Your task to perform on an android device: uninstall "Grab" Image 0: 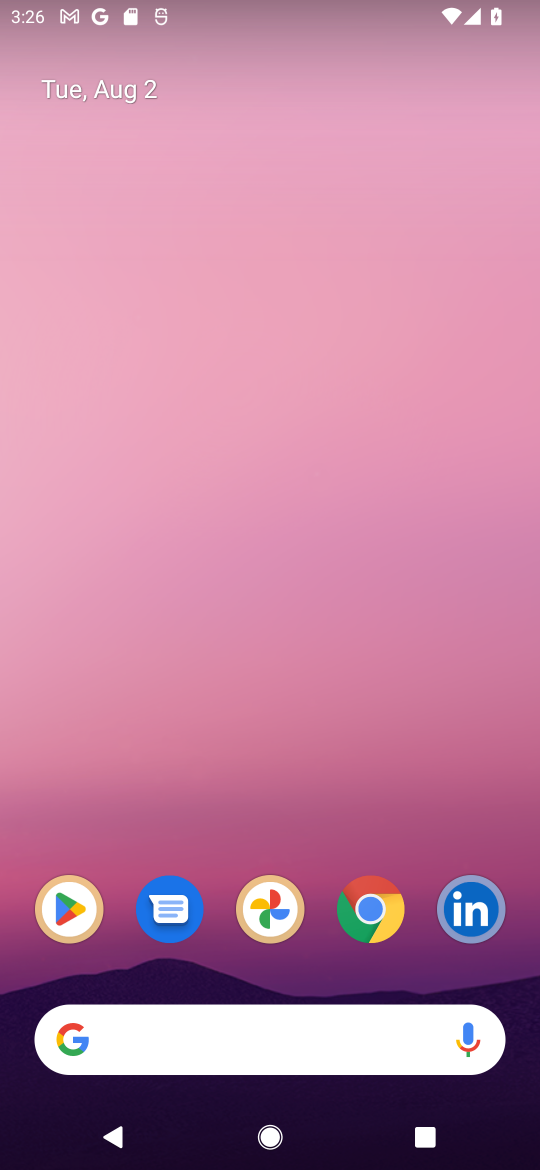
Step 0: drag from (266, 944) to (388, 513)
Your task to perform on an android device: uninstall "Grab" Image 1: 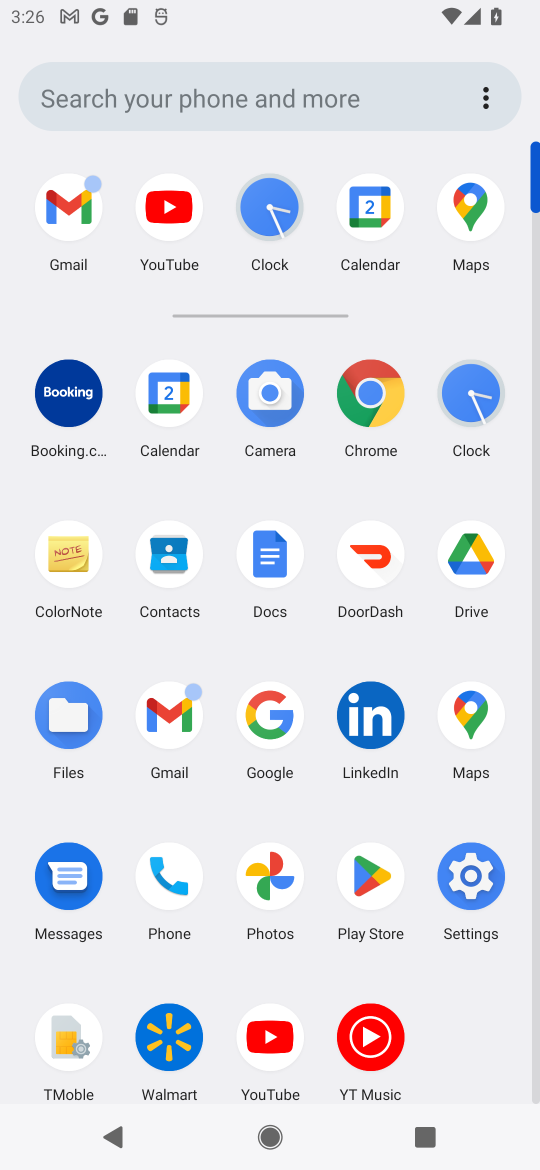
Step 1: click (384, 890)
Your task to perform on an android device: uninstall "Grab" Image 2: 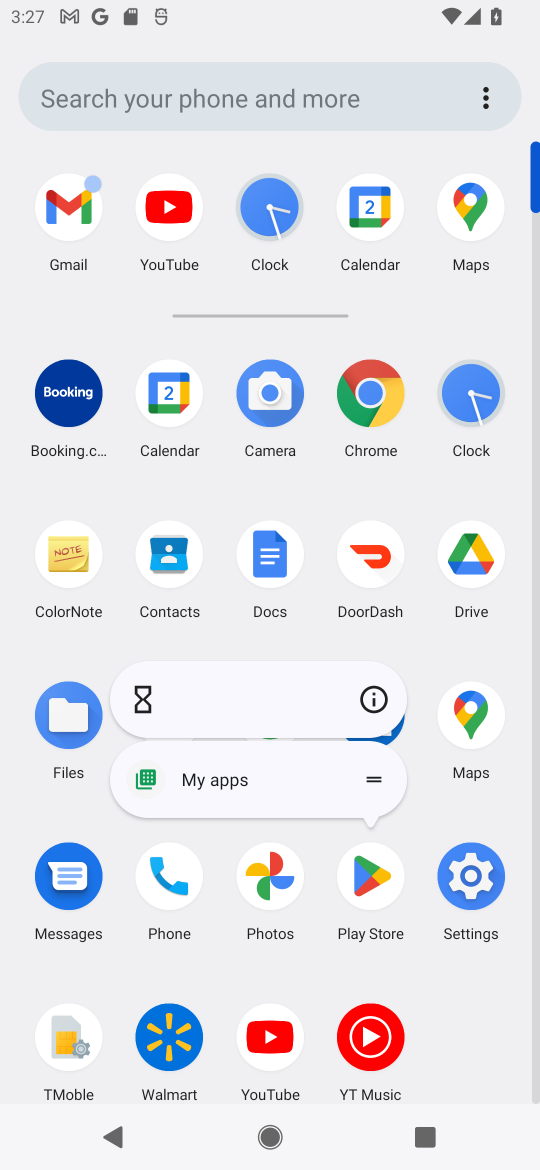
Step 2: click (372, 691)
Your task to perform on an android device: uninstall "Grab" Image 3: 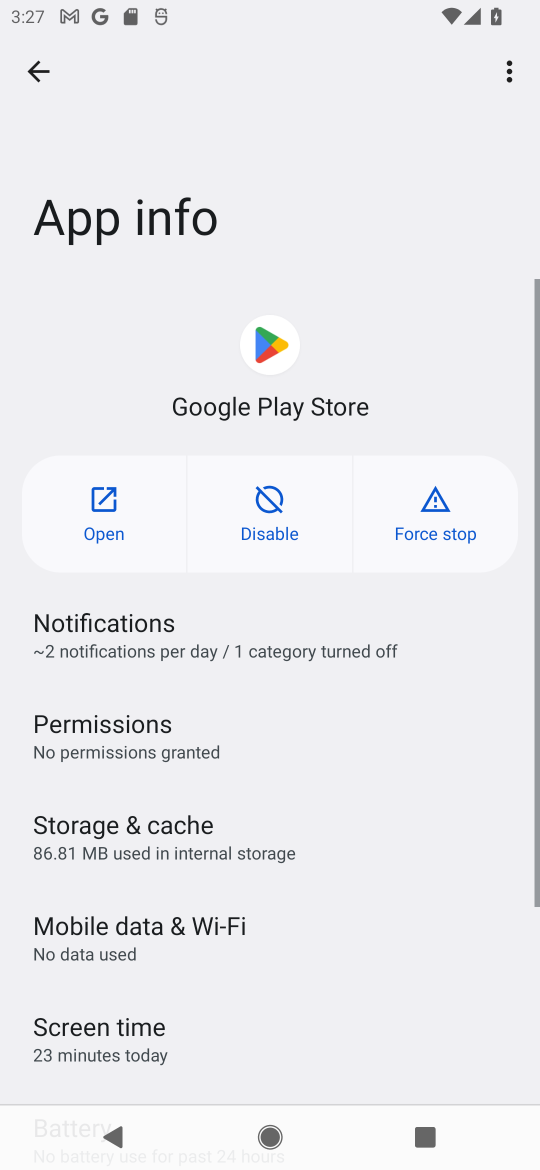
Step 3: click (97, 523)
Your task to perform on an android device: uninstall "Grab" Image 4: 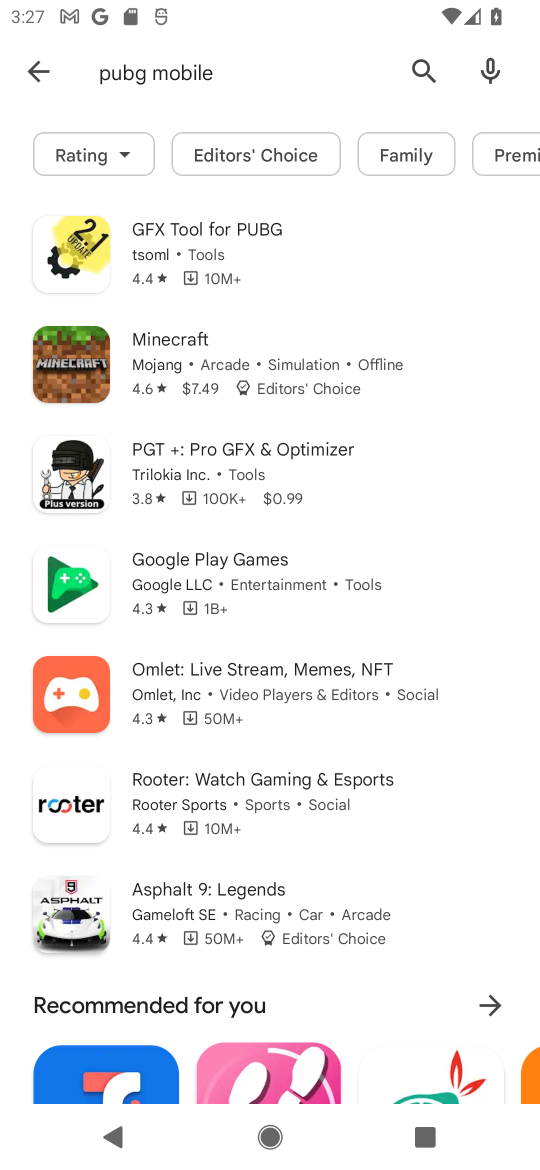
Step 4: click (435, 77)
Your task to perform on an android device: uninstall "Grab" Image 5: 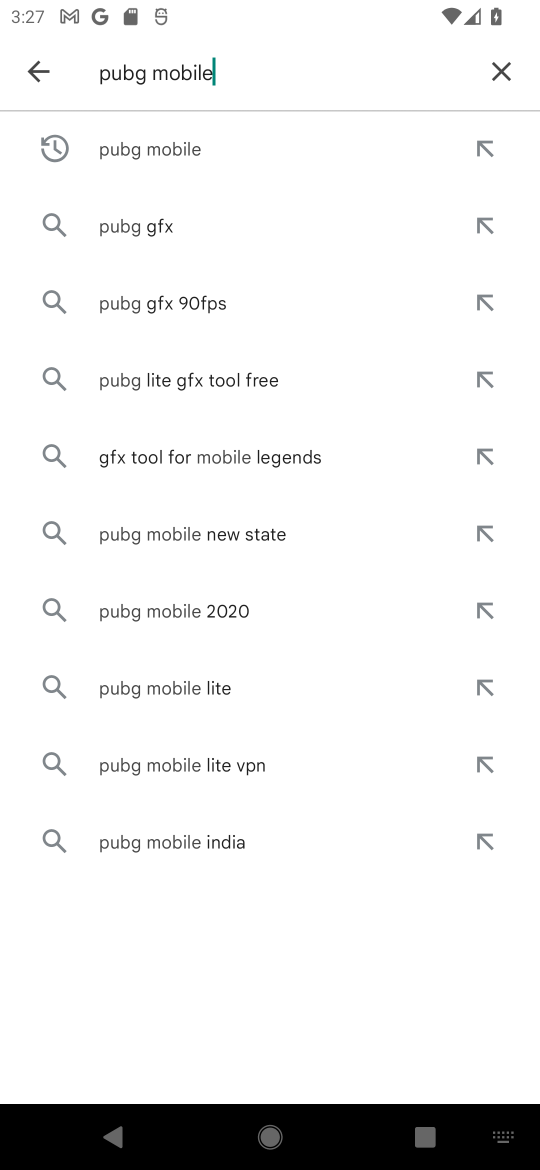
Step 5: click (510, 76)
Your task to perform on an android device: uninstall "Grab" Image 6: 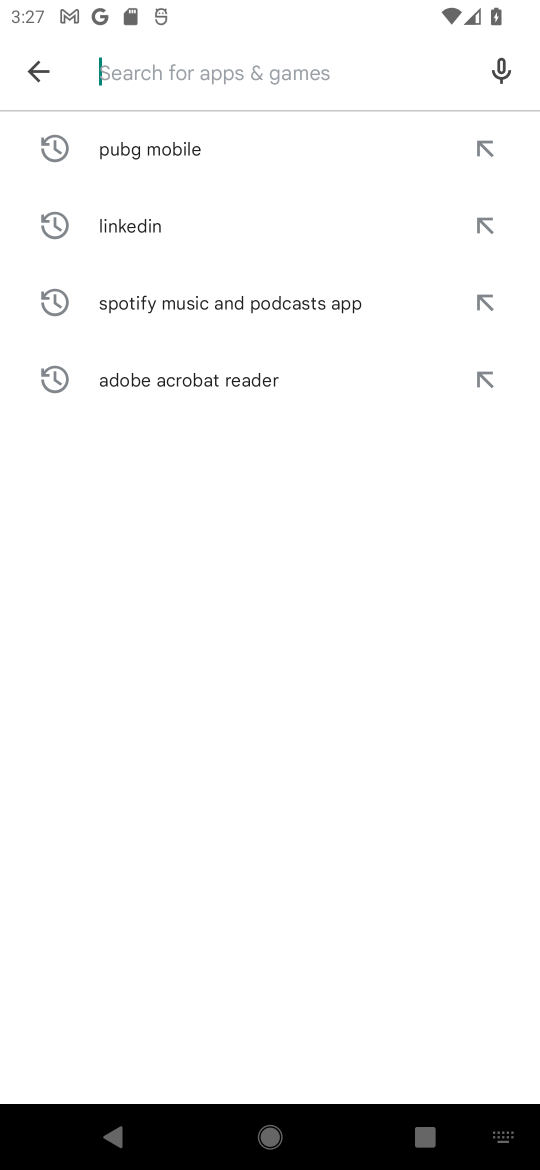
Step 6: click (147, 63)
Your task to perform on an android device: uninstall "Grab" Image 7: 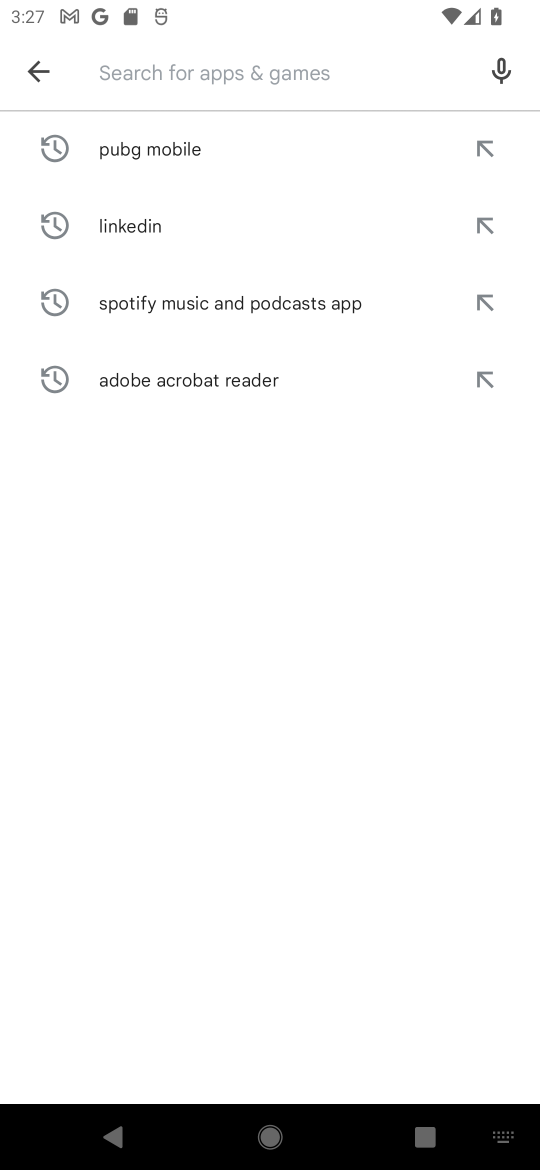
Step 7: type "Grab"
Your task to perform on an android device: uninstall "Grab" Image 8: 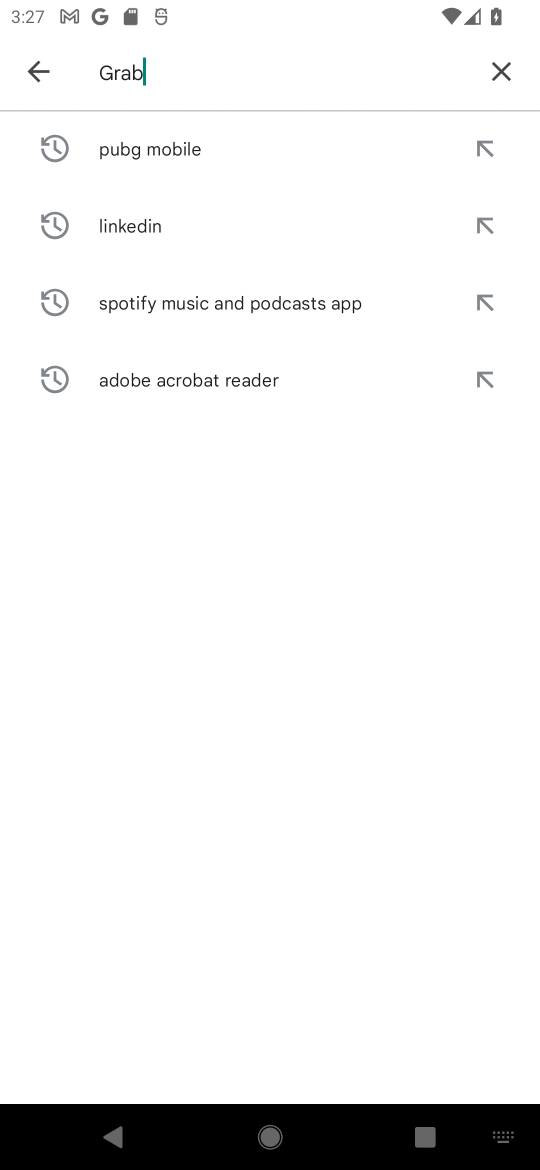
Step 8: type ""
Your task to perform on an android device: uninstall "Grab" Image 9: 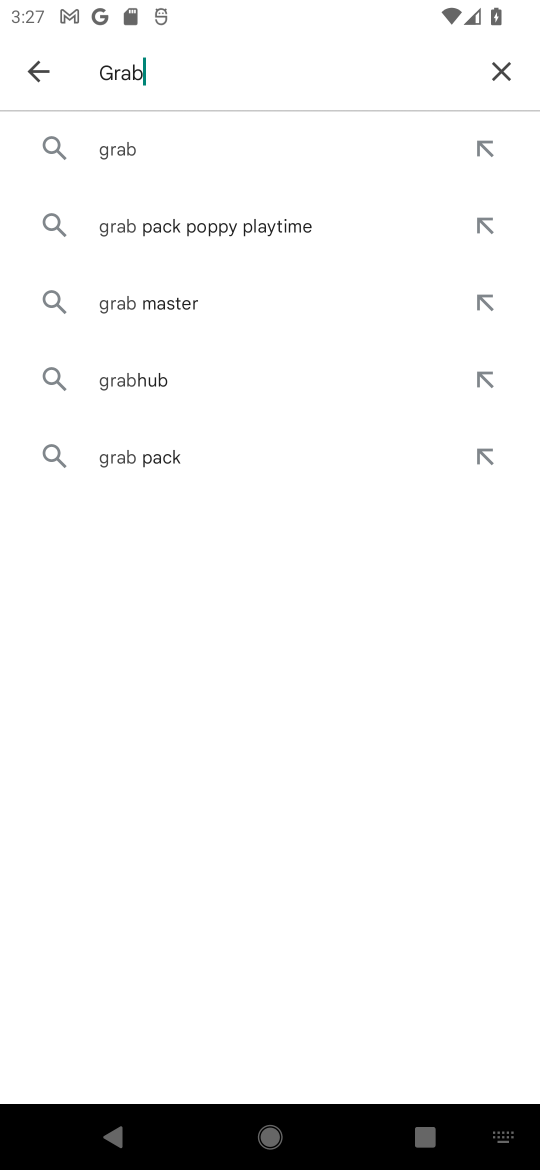
Step 9: click (189, 151)
Your task to perform on an android device: uninstall "Grab" Image 10: 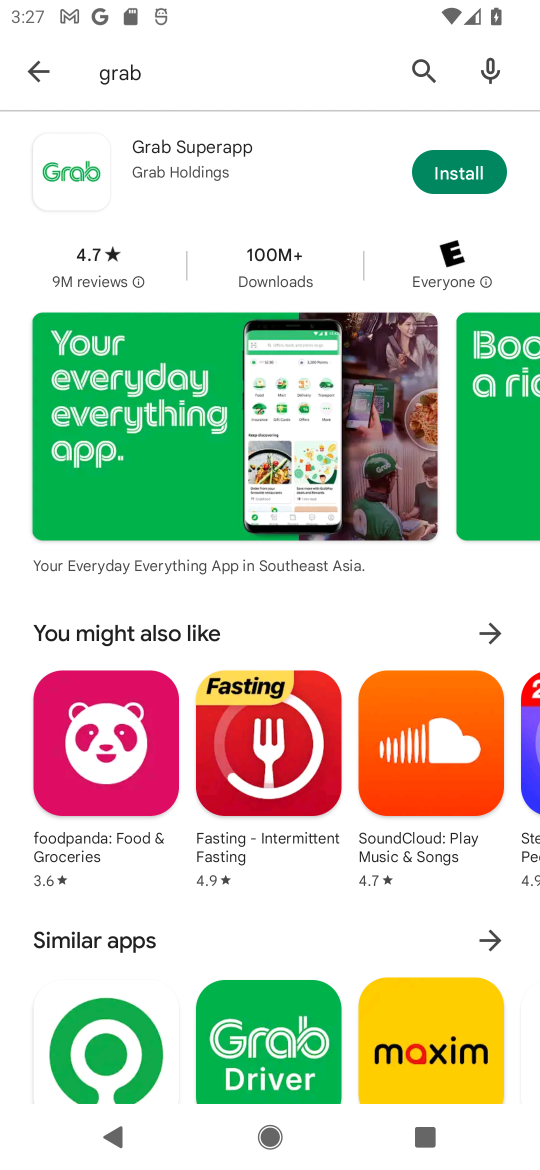
Step 10: click (155, 160)
Your task to perform on an android device: uninstall "Grab" Image 11: 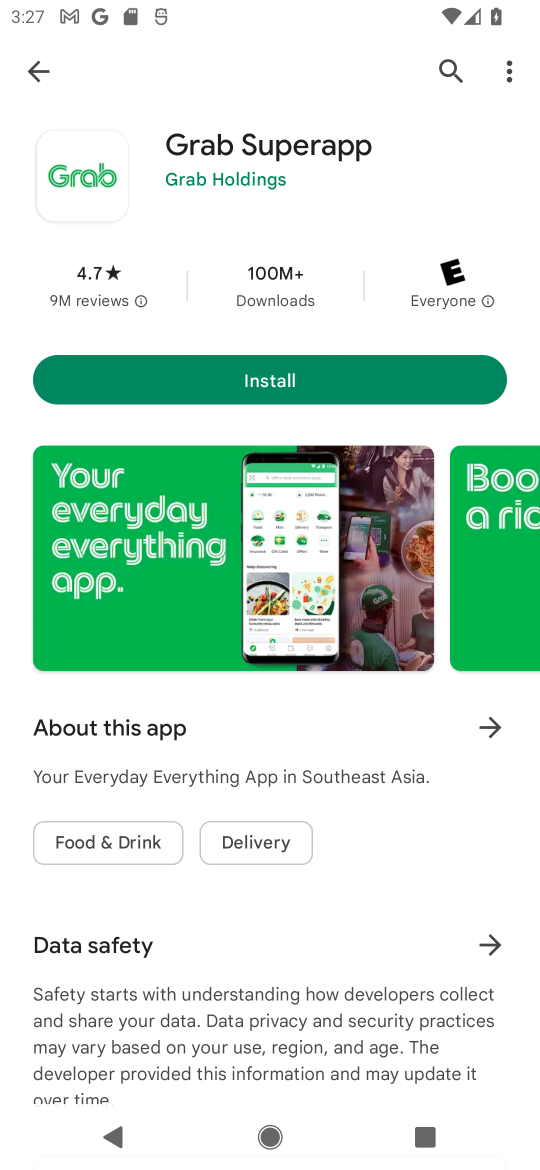
Step 11: task complete